Your task to perform on an android device: Open Youtube and go to "Your channel" Image 0: 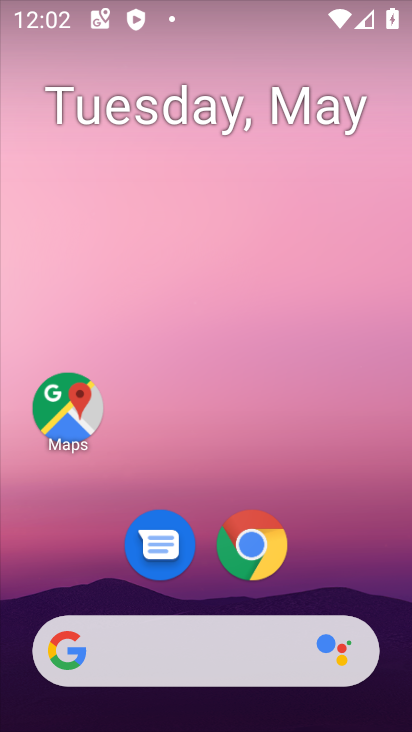
Step 0: drag from (202, 582) to (194, 78)
Your task to perform on an android device: Open Youtube and go to "Your channel" Image 1: 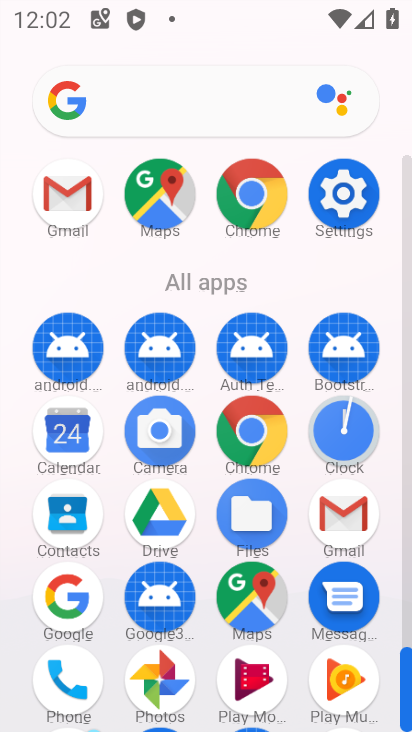
Step 1: drag from (204, 650) to (210, 96)
Your task to perform on an android device: Open Youtube and go to "Your channel" Image 2: 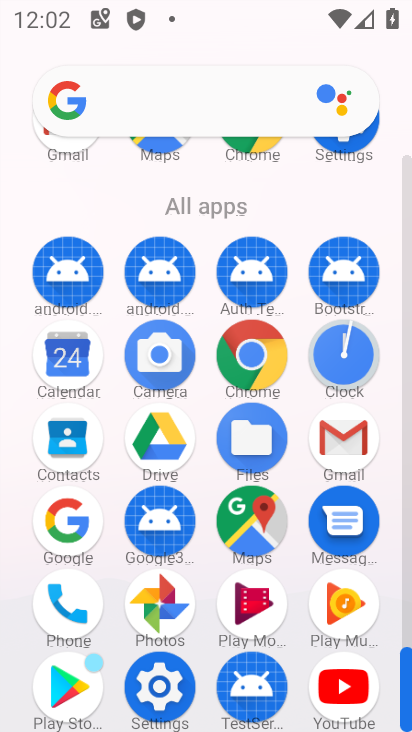
Step 2: click (329, 682)
Your task to perform on an android device: Open Youtube and go to "Your channel" Image 3: 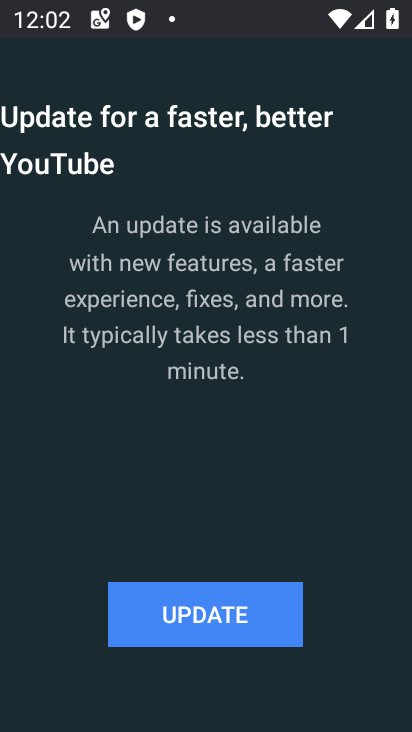
Step 3: click (178, 601)
Your task to perform on an android device: Open Youtube and go to "Your channel" Image 4: 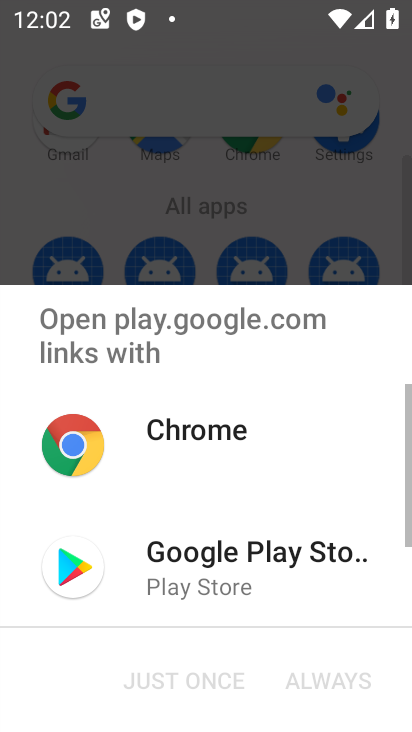
Step 4: click (178, 601)
Your task to perform on an android device: Open Youtube and go to "Your channel" Image 5: 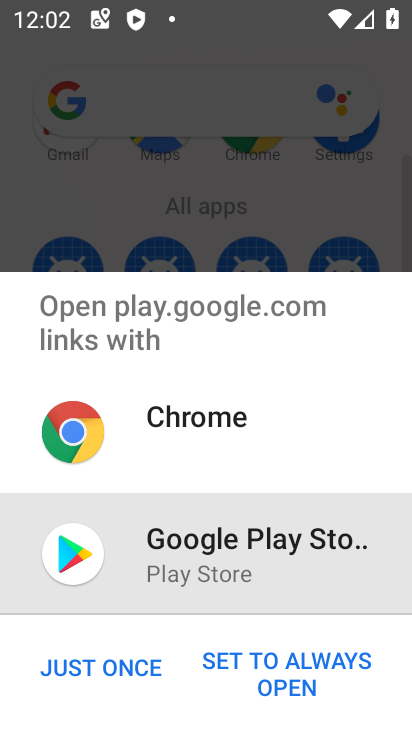
Step 5: click (115, 679)
Your task to perform on an android device: Open Youtube and go to "Your channel" Image 6: 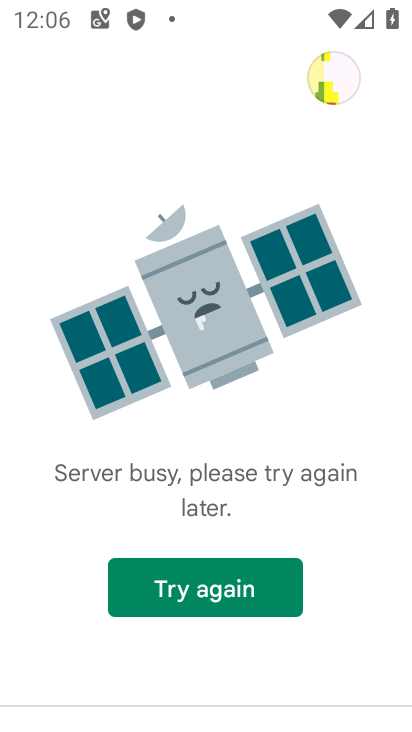
Step 6: task complete